Your task to perform on an android device: Go to accessibility settings Image 0: 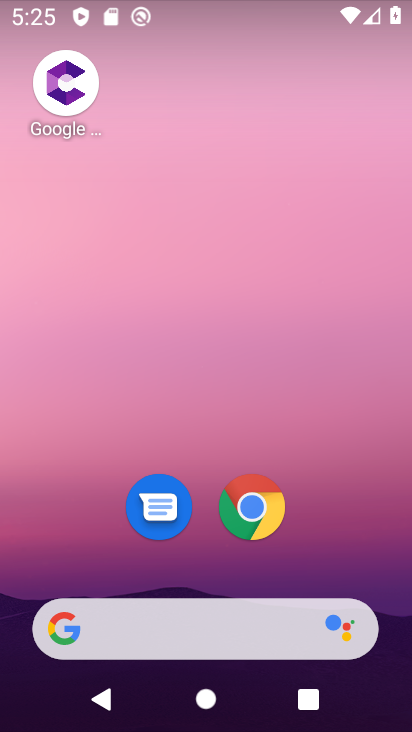
Step 0: drag from (321, 414) to (317, 121)
Your task to perform on an android device: Go to accessibility settings Image 1: 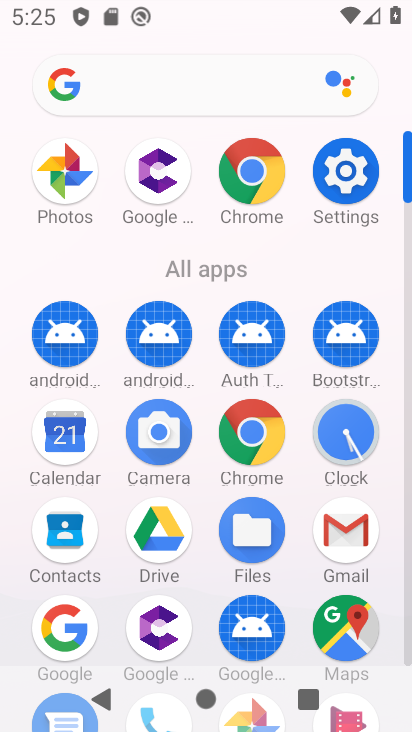
Step 1: click (353, 171)
Your task to perform on an android device: Go to accessibility settings Image 2: 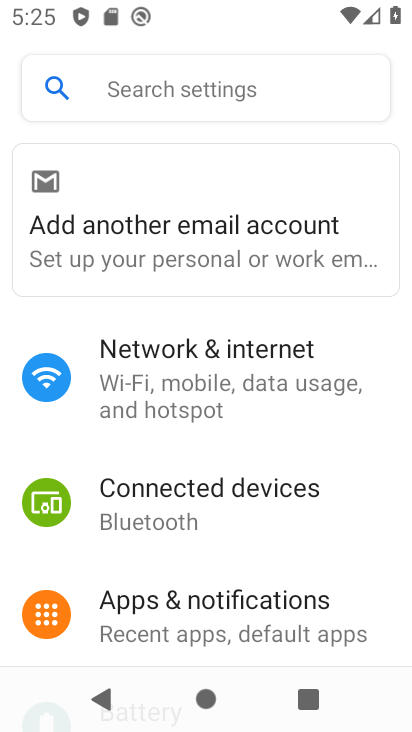
Step 2: drag from (375, 585) to (351, 106)
Your task to perform on an android device: Go to accessibility settings Image 3: 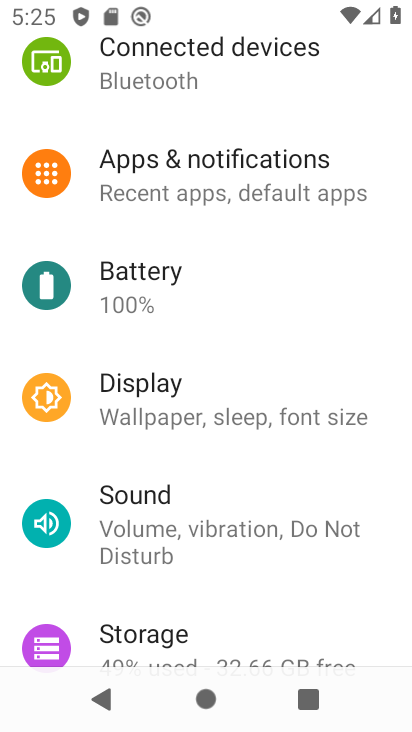
Step 3: drag from (381, 591) to (355, 94)
Your task to perform on an android device: Go to accessibility settings Image 4: 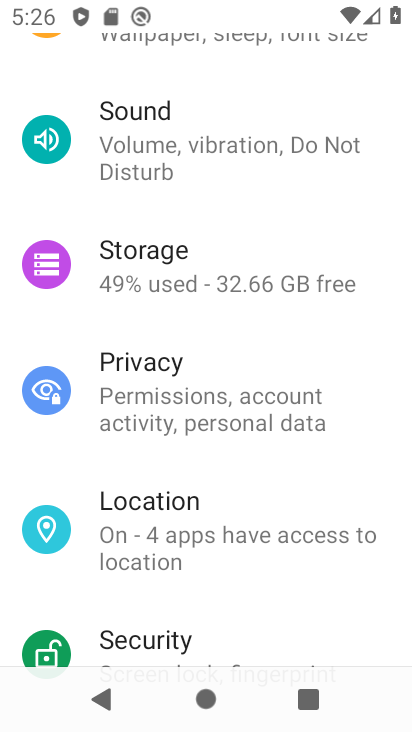
Step 4: drag from (333, 601) to (354, 146)
Your task to perform on an android device: Go to accessibility settings Image 5: 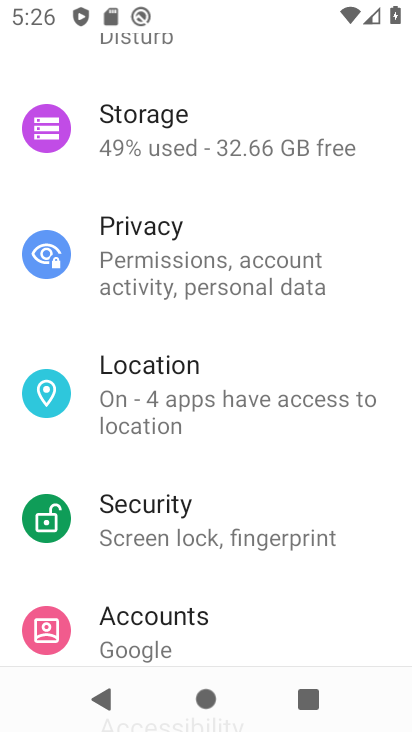
Step 5: drag from (351, 635) to (354, 162)
Your task to perform on an android device: Go to accessibility settings Image 6: 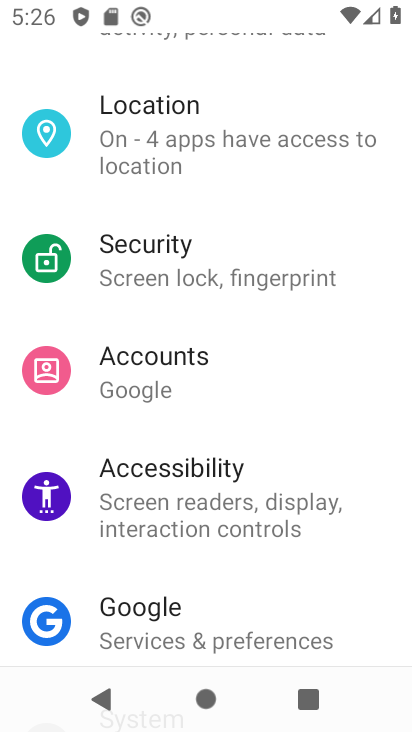
Step 6: click (178, 474)
Your task to perform on an android device: Go to accessibility settings Image 7: 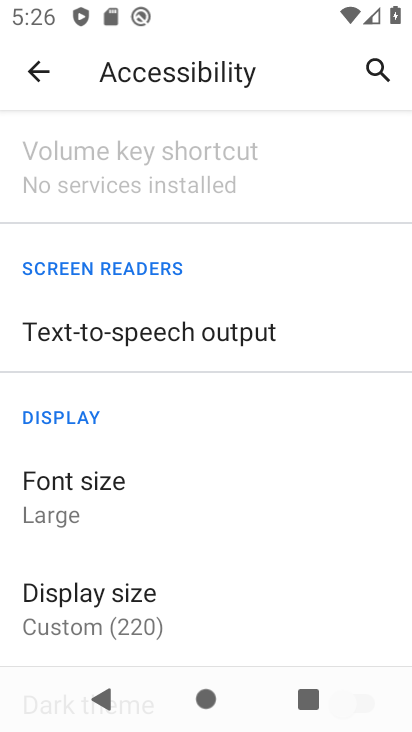
Step 7: task complete